Your task to perform on an android device: change the clock display to show seconds Image 0: 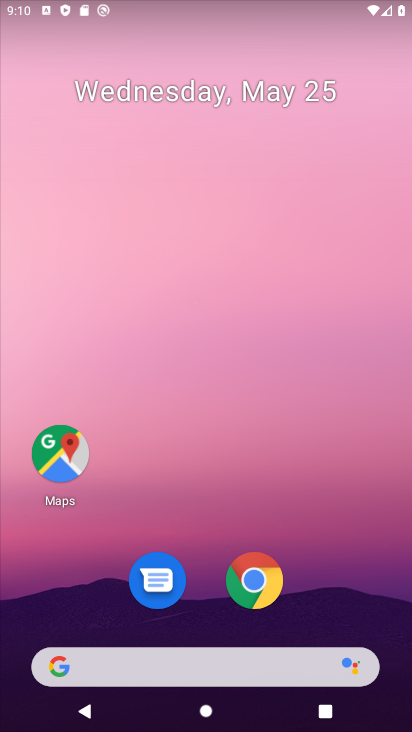
Step 0: drag from (41, 508) to (301, 2)
Your task to perform on an android device: change the clock display to show seconds Image 1: 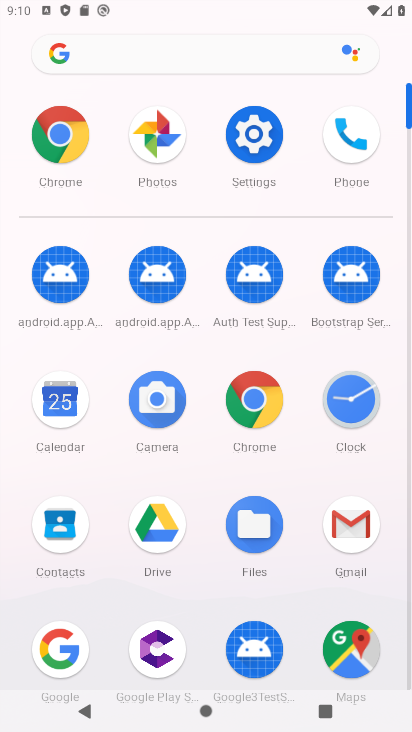
Step 1: click (362, 402)
Your task to perform on an android device: change the clock display to show seconds Image 2: 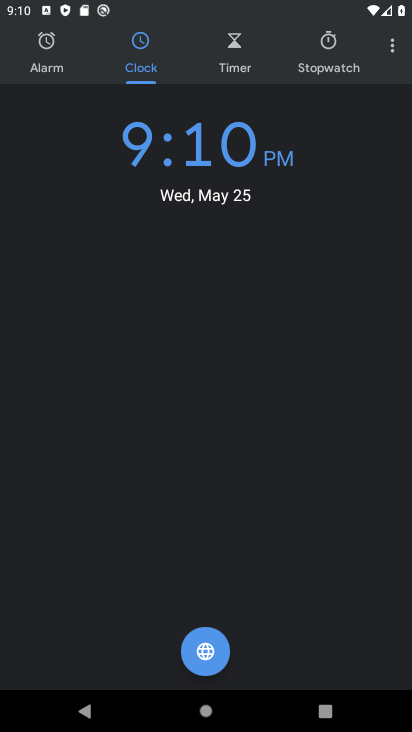
Step 2: click (393, 48)
Your task to perform on an android device: change the clock display to show seconds Image 3: 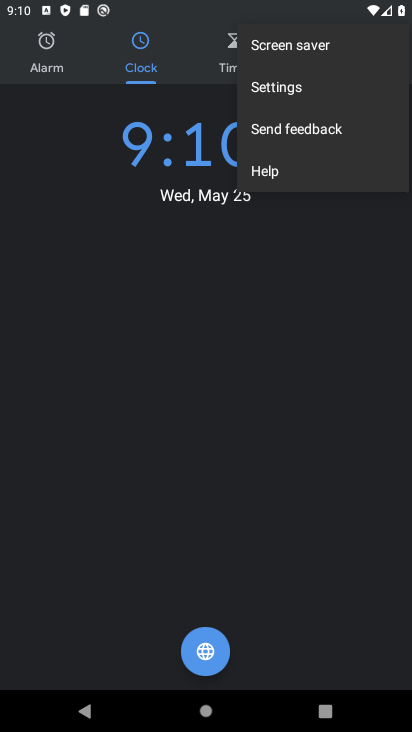
Step 3: click (320, 89)
Your task to perform on an android device: change the clock display to show seconds Image 4: 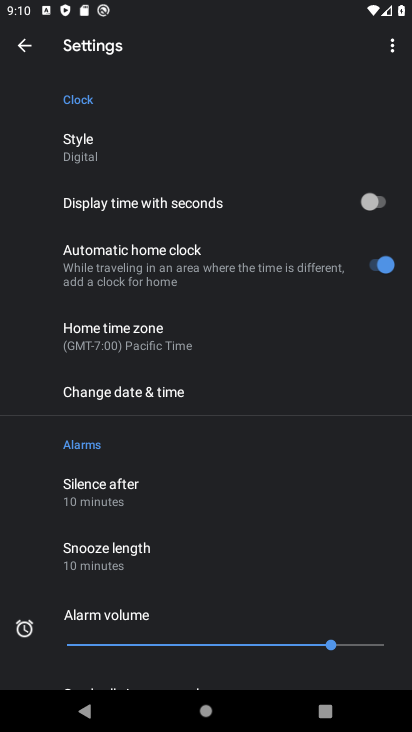
Step 4: click (378, 201)
Your task to perform on an android device: change the clock display to show seconds Image 5: 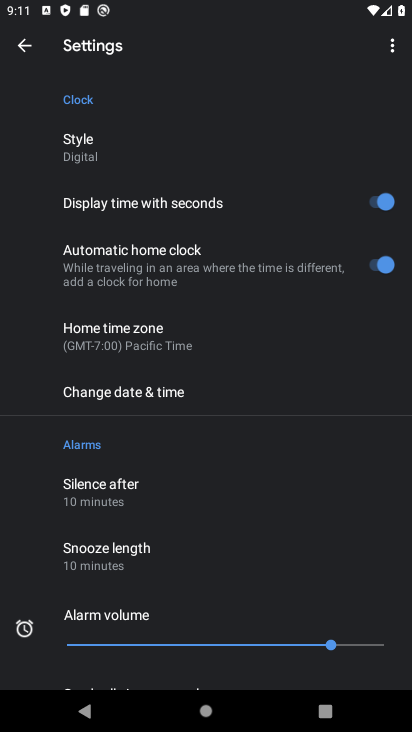
Step 5: task complete